Your task to perform on an android device: Empty the shopping cart on walmart. Image 0: 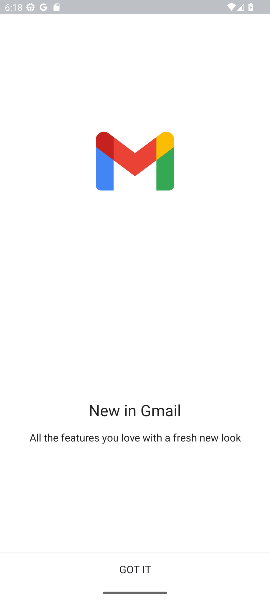
Step 0: press home button
Your task to perform on an android device: Empty the shopping cart on walmart. Image 1: 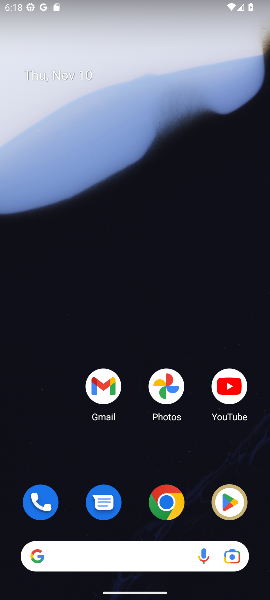
Step 1: click (123, 552)
Your task to perform on an android device: Empty the shopping cart on walmart. Image 2: 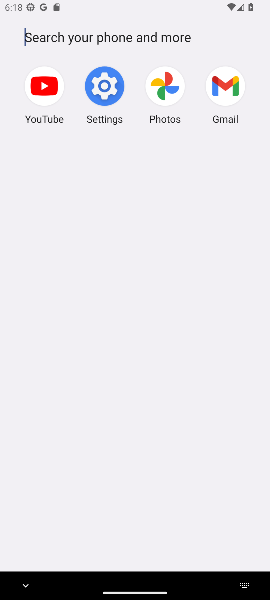
Step 2: press back button
Your task to perform on an android device: Empty the shopping cart on walmart. Image 3: 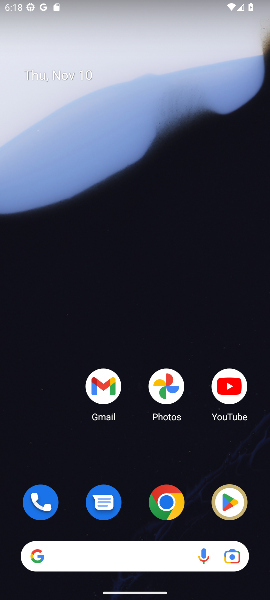
Step 3: drag from (137, 531) to (64, 188)
Your task to perform on an android device: Empty the shopping cart on walmart. Image 4: 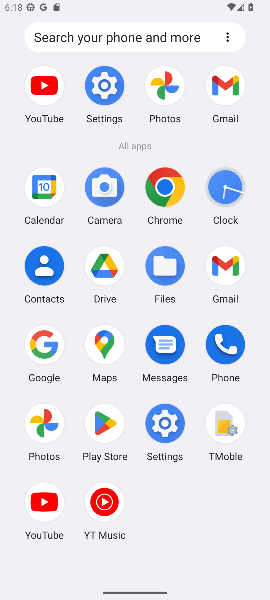
Step 4: click (46, 346)
Your task to perform on an android device: Empty the shopping cart on walmart. Image 5: 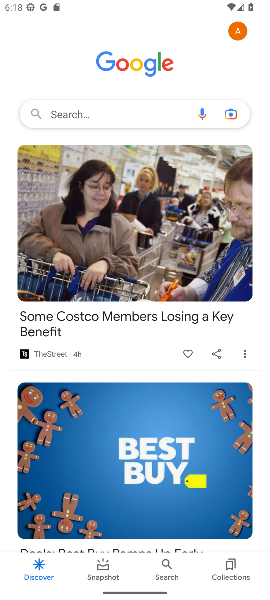
Step 5: click (90, 117)
Your task to perform on an android device: Empty the shopping cart on walmart. Image 6: 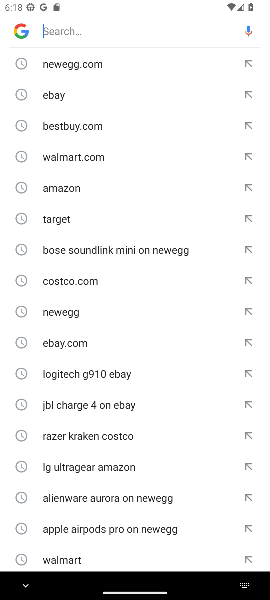
Step 6: click (90, 154)
Your task to perform on an android device: Empty the shopping cart on walmart. Image 7: 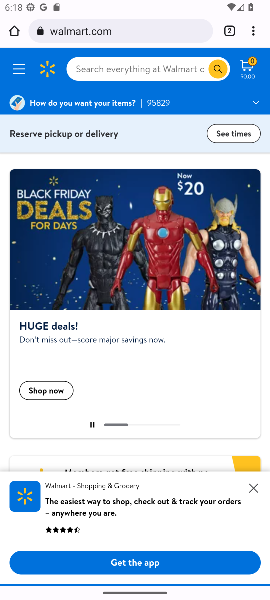
Step 7: click (248, 70)
Your task to perform on an android device: Empty the shopping cart on walmart. Image 8: 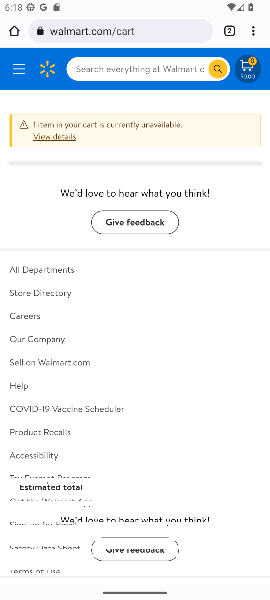
Step 8: task complete